Your task to perform on an android device: open chrome privacy settings Image 0: 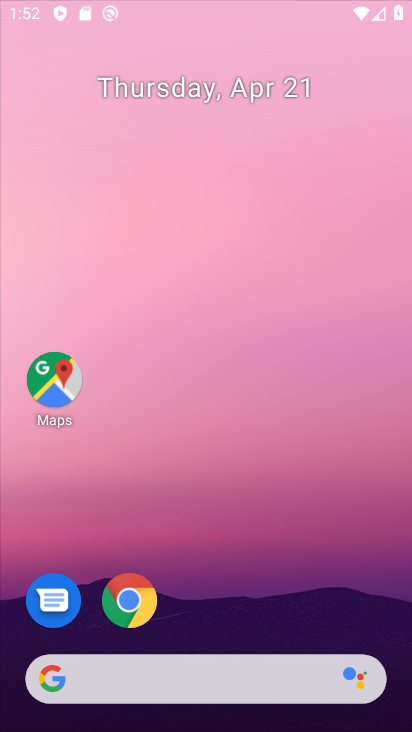
Step 0: click (320, 136)
Your task to perform on an android device: open chrome privacy settings Image 1: 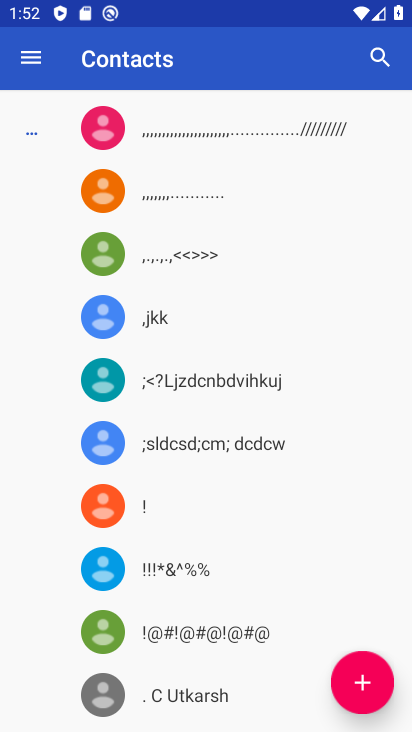
Step 1: press home button
Your task to perform on an android device: open chrome privacy settings Image 2: 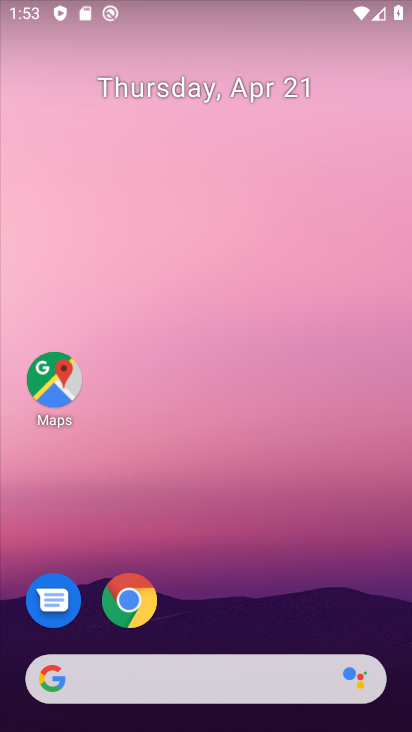
Step 2: drag from (305, 569) to (303, 79)
Your task to perform on an android device: open chrome privacy settings Image 3: 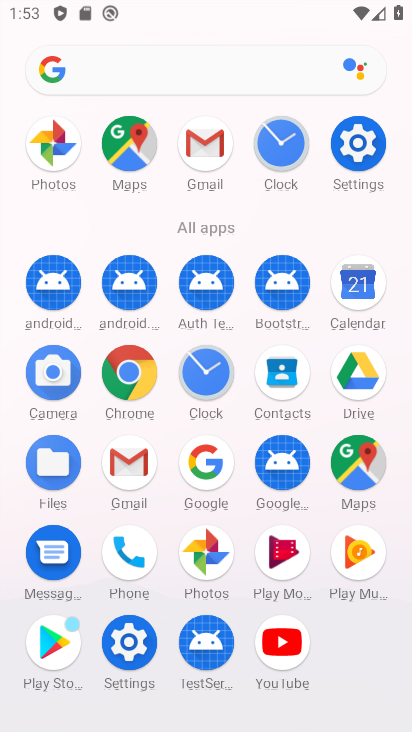
Step 3: click (126, 374)
Your task to perform on an android device: open chrome privacy settings Image 4: 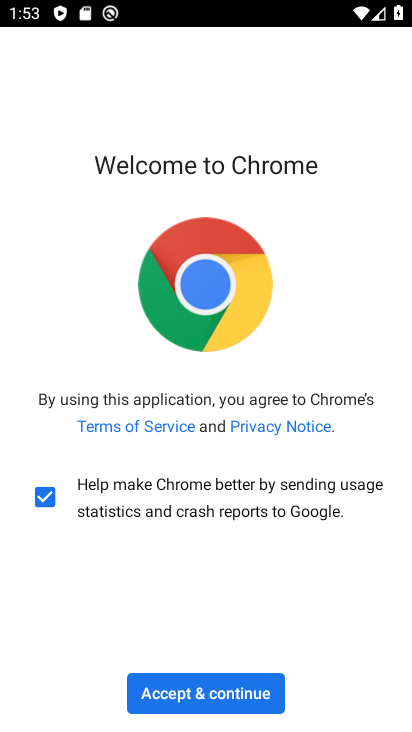
Step 4: click (206, 685)
Your task to perform on an android device: open chrome privacy settings Image 5: 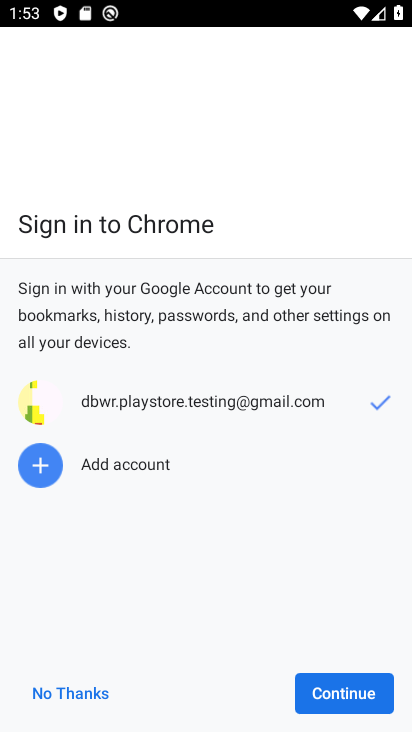
Step 5: click (351, 692)
Your task to perform on an android device: open chrome privacy settings Image 6: 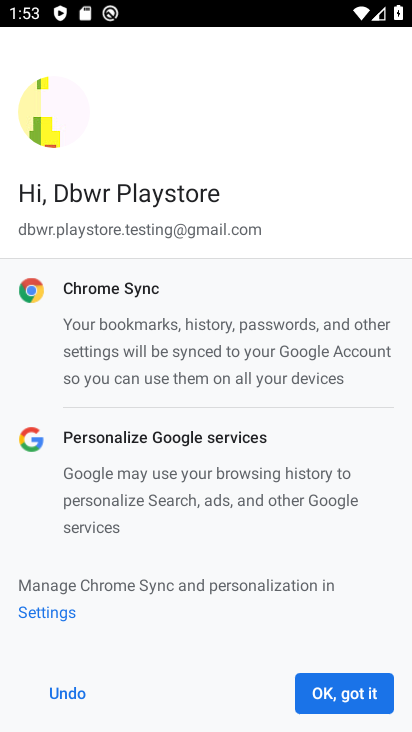
Step 6: click (351, 692)
Your task to perform on an android device: open chrome privacy settings Image 7: 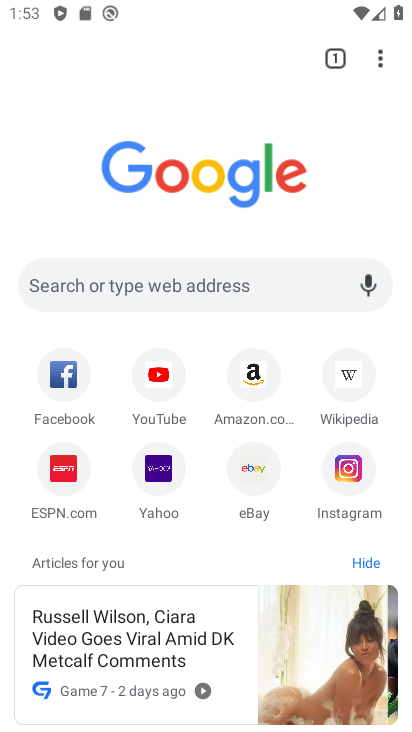
Step 7: click (384, 55)
Your task to perform on an android device: open chrome privacy settings Image 8: 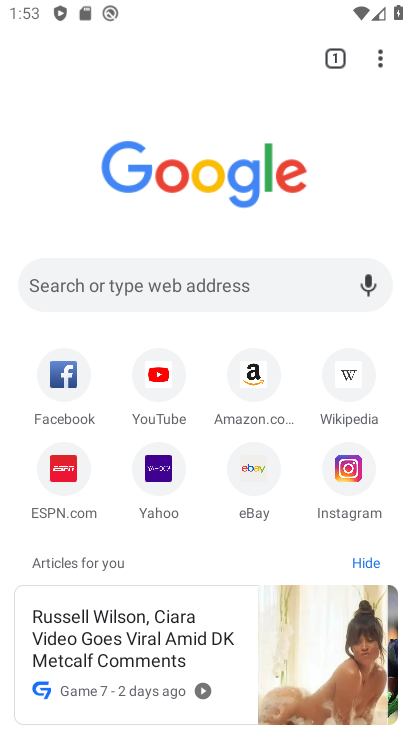
Step 8: drag from (381, 52) to (187, 491)
Your task to perform on an android device: open chrome privacy settings Image 9: 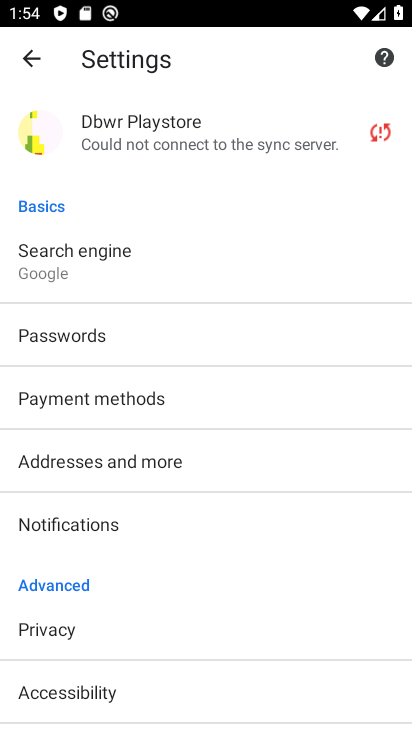
Step 9: click (117, 623)
Your task to perform on an android device: open chrome privacy settings Image 10: 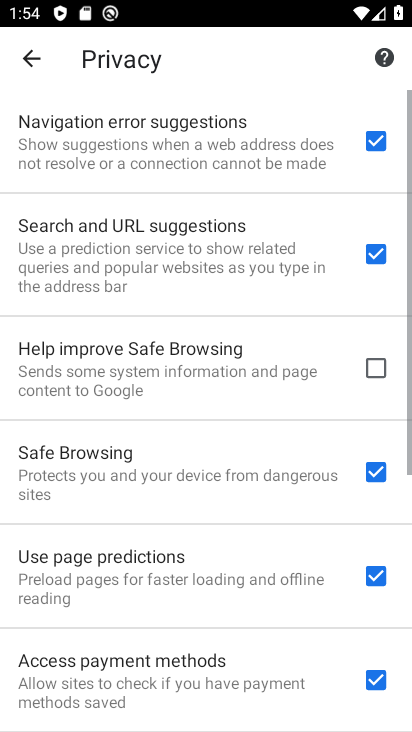
Step 10: task complete